Your task to perform on an android device: Open calendar and show me the second week of next month Image 0: 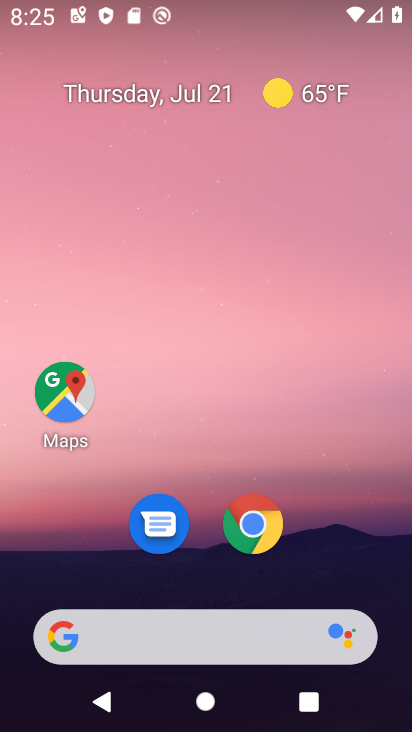
Step 0: drag from (193, 623) to (138, 204)
Your task to perform on an android device: Open calendar and show me the second week of next month Image 1: 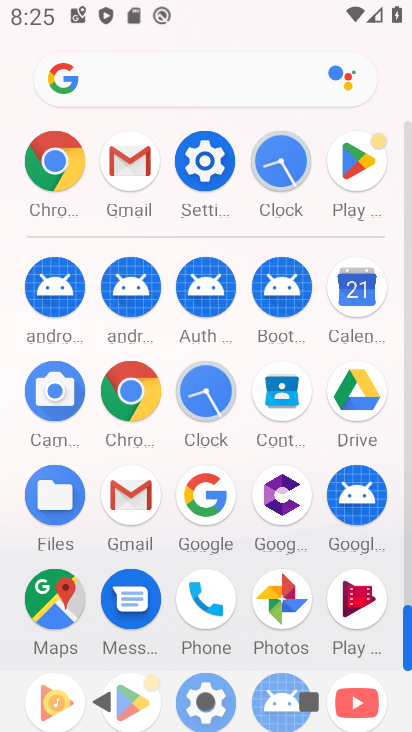
Step 1: click (371, 294)
Your task to perform on an android device: Open calendar and show me the second week of next month Image 2: 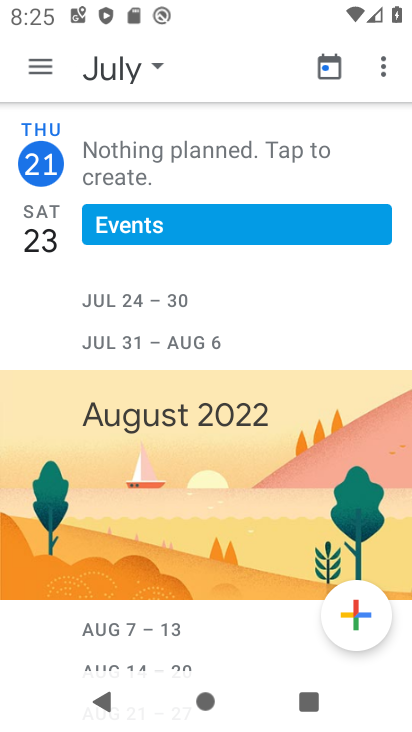
Step 2: click (40, 84)
Your task to perform on an android device: Open calendar and show me the second week of next month Image 3: 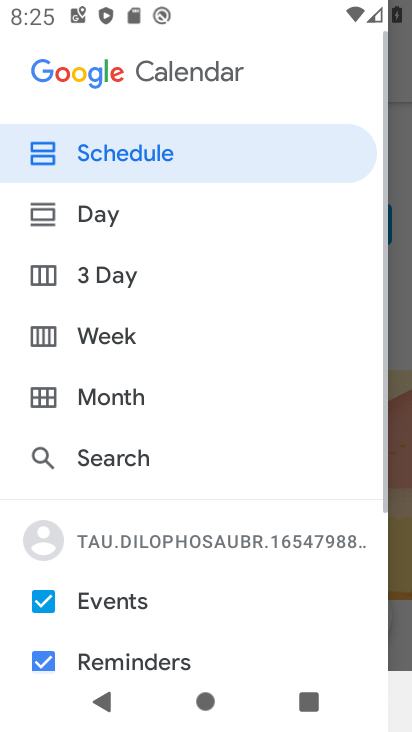
Step 3: click (110, 391)
Your task to perform on an android device: Open calendar and show me the second week of next month Image 4: 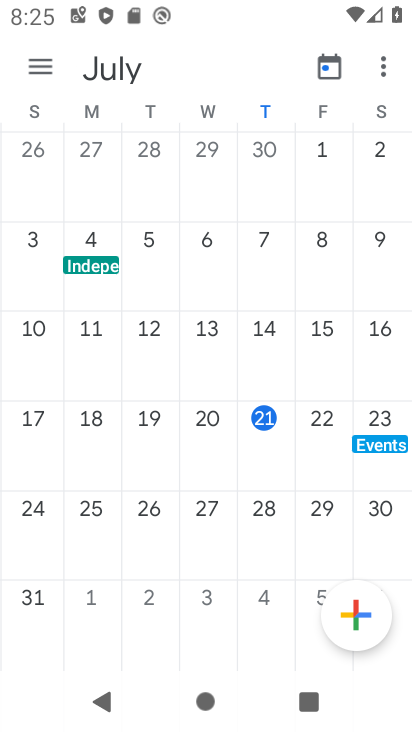
Step 4: task complete